Your task to perform on an android device: Open Youtube and go to "Your channel" Image 0: 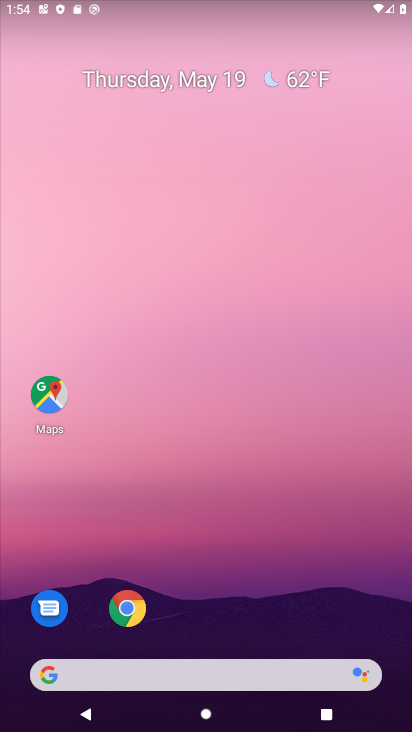
Step 0: drag from (259, 597) to (216, 79)
Your task to perform on an android device: Open Youtube and go to "Your channel" Image 1: 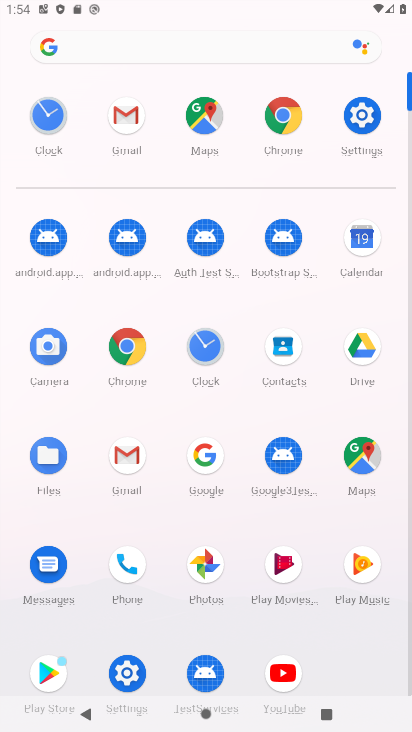
Step 1: click (293, 653)
Your task to perform on an android device: Open Youtube and go to "Your channel" Image 2: 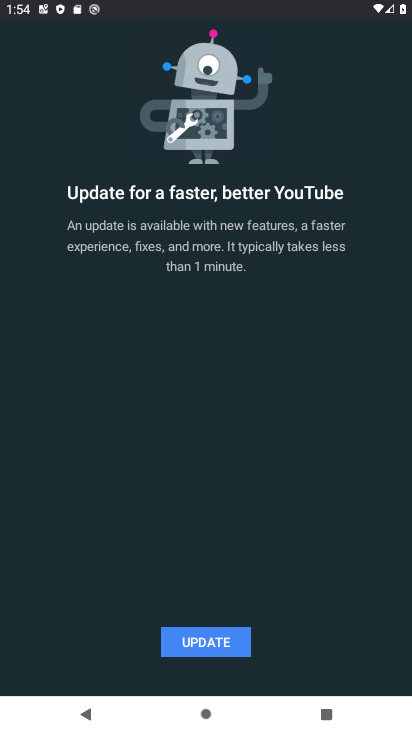
Step 2: click (231, 653)
Your task to perform on an android device: Open Youtube and go to "Your channel" Image 3: 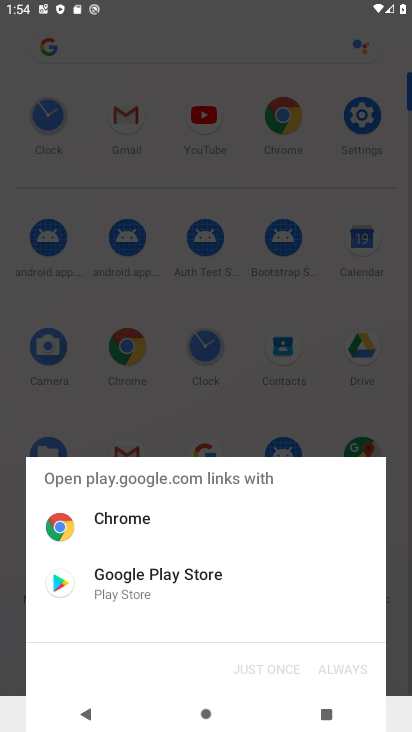
Step 3: click (240, 608)
Your task to perform on an android device: Open Youtube and go to "Your channel" Image 4: 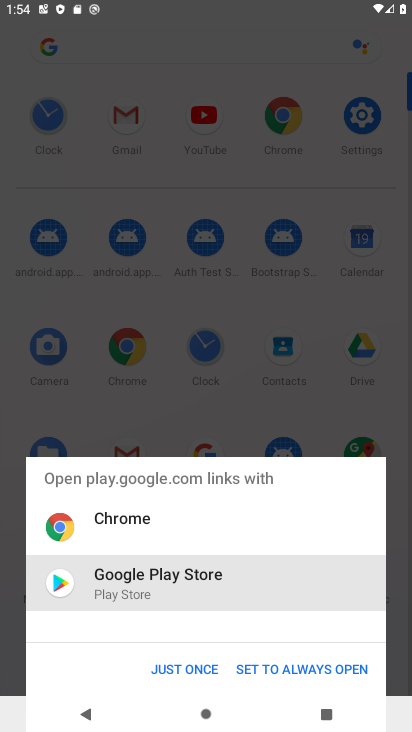
Step 4: click (144, 674)
Your task to perform on an android device: Open Youtube and go to "Your channel" Image 5: 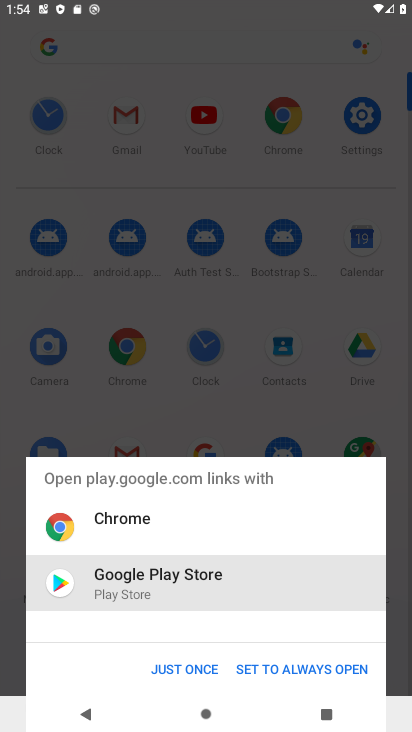
Step 5: click (144, 674)
Your task to perform on an android device: Open Youtube and go to "Your channel" Image 6: 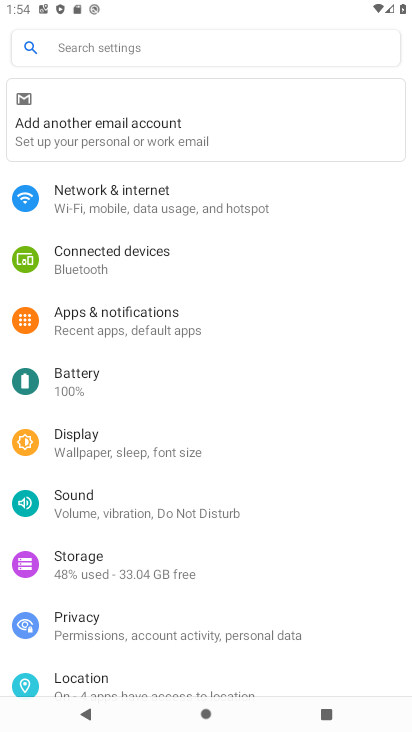
Step 6: press home button
Your task to perform on an android device: Open Youtube and go to "Your channel" Image 7: 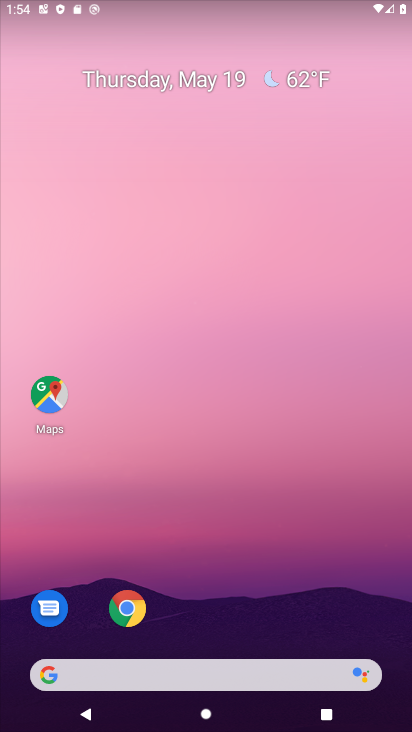
Step 7: drag from (295, 623) to (196, 125)
Your task to perform on an android device: Open Youtube and go to "Your channel" Image 8: 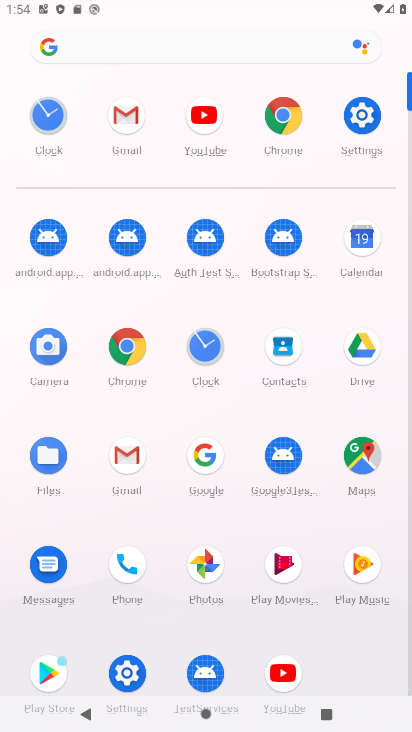
Step 8: click (196, 130)
Your task to perform on an android device: Open Youtube and go to "Your channel" Image 9: 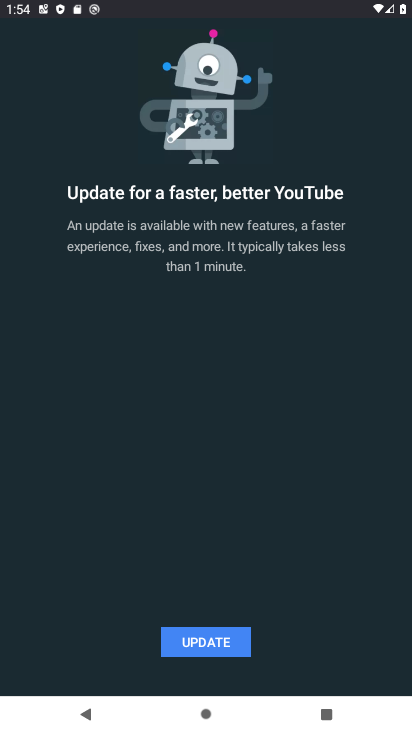
Step 9: click (167, 637)
Your task to perform on an android device: Open Youtube and go to "Your channel" Image 10: 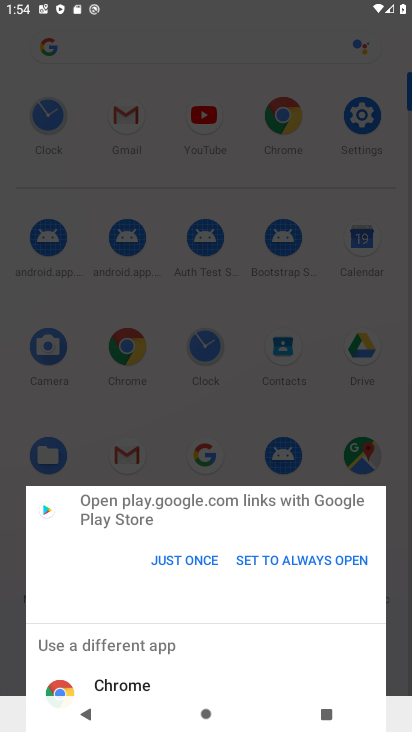
Step 10: click (159, 573)
Your task to perform on an android device: Open Youtube and go to "Your channel" Image 11: 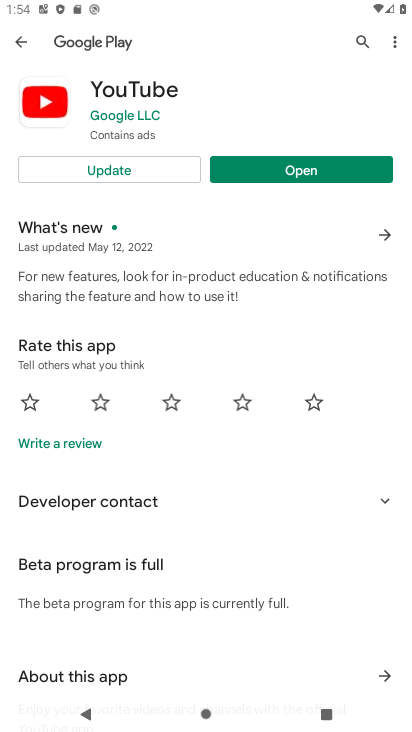
Step 11: click (125, 161)
Your task to perform on an android device: Open Youtube and go to "Your channel" Image 12: 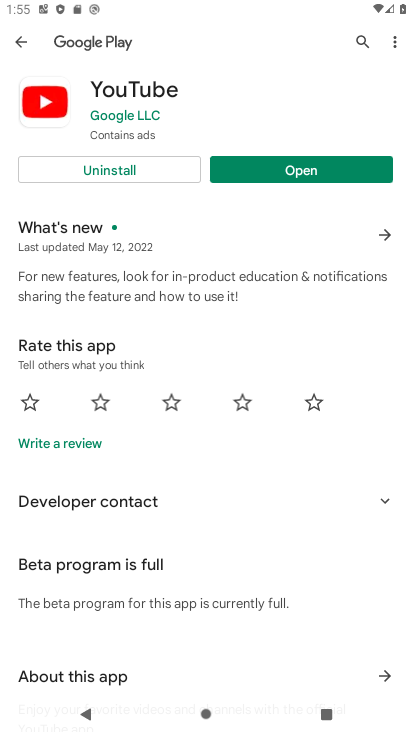
Step 12: click (301, 159)
Your task to perform on an android device: Open Youtube and go to "Your channel" Image 13: 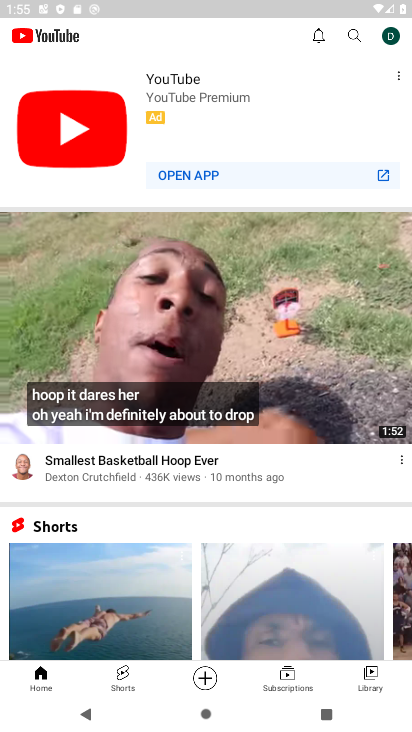
Step 13: click (399, 34)
Your task to perform on an android device: Open Youtube and go to "Your channel" Image 14: 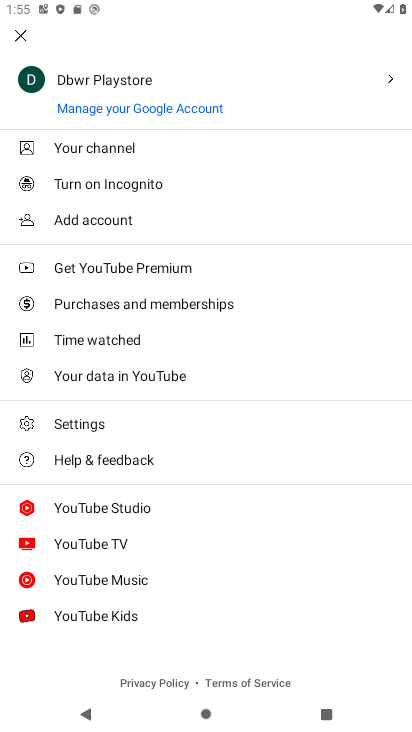
Step 14: click (132, 158)
Your task to perform on an android device: Open Youtube and go to "Your channel" Image 15: 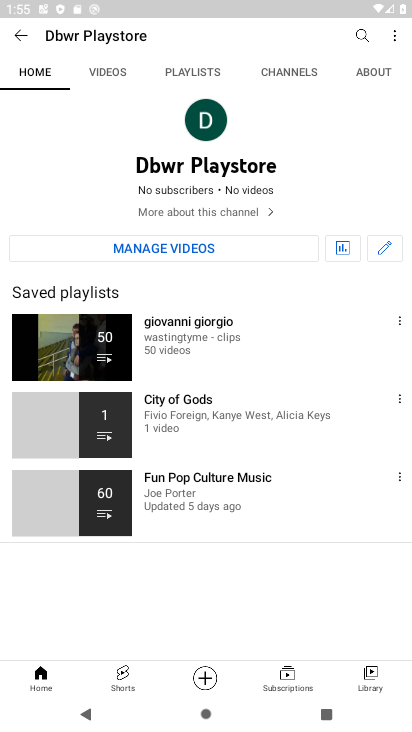
Step 15: task complete